Your task to perform on an android device: Go to display settings Image 0: 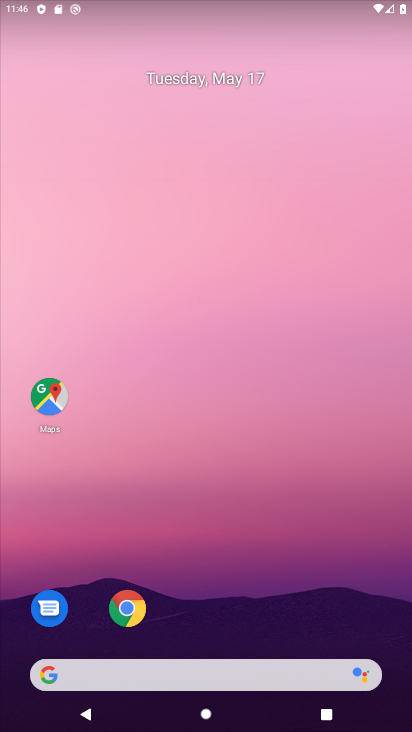
Step 0: drag from (257, 577) to (315, 224)
Your task to perform on an android device: Go to display settings Image 1: 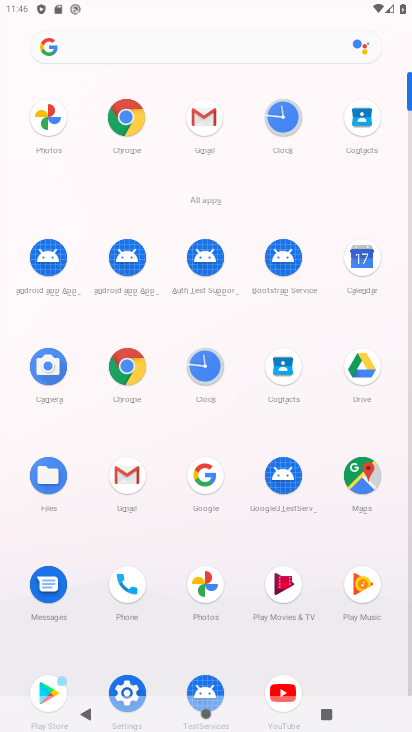
Step 1: click (125, 684)
Your task to perform on an android device: Go to display settings Image 2: 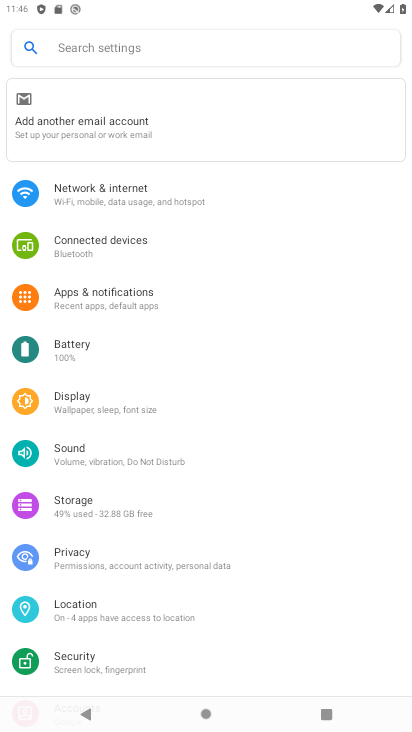
Step 2: click (129, 406)
Your task to perform on an android device: Go to display settings Image 3: 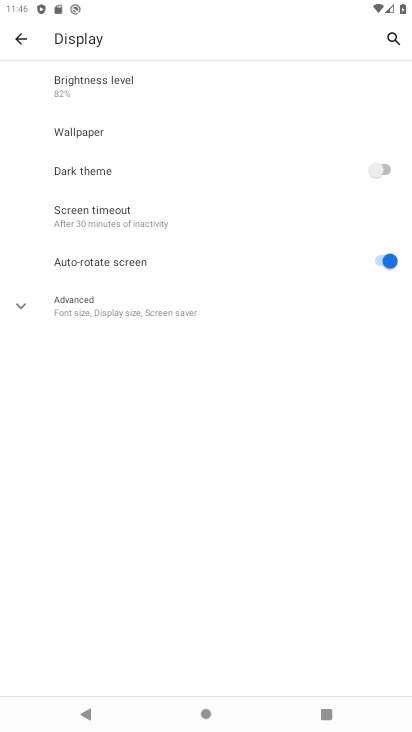
Step 3: task complete